Your task to perform on an android device: turn smart compose on in the gmail app Image 0: 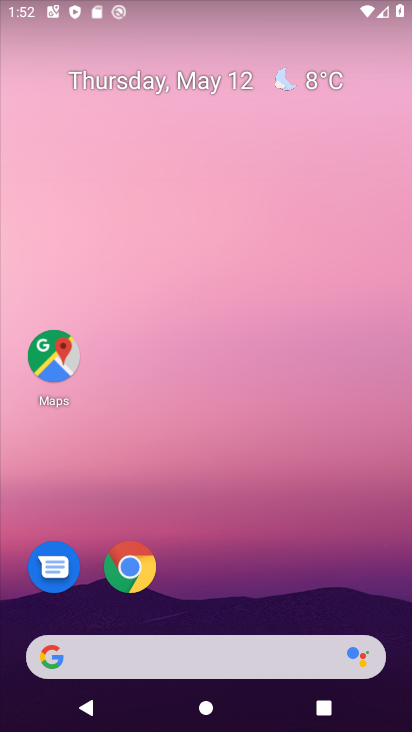
Step 0: drag from (219, 608) to (245, 33)
Your task to perform on an android device: turn smart compose on in the gmail app Image 1: 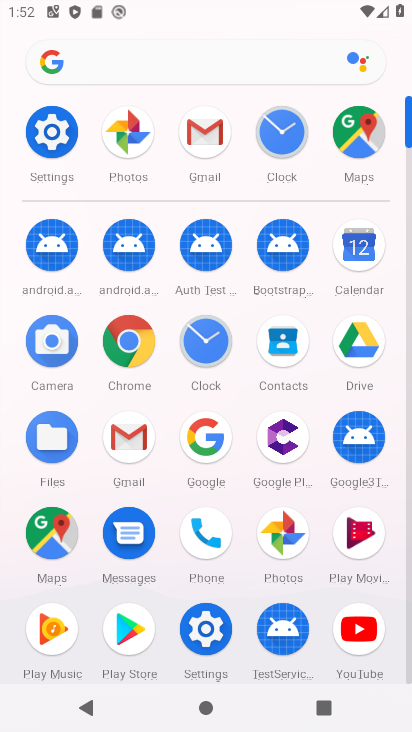
Step 1: click (128, 433)
Your task to perform on an android device: turn smart compose on in the gmail app Image 2: 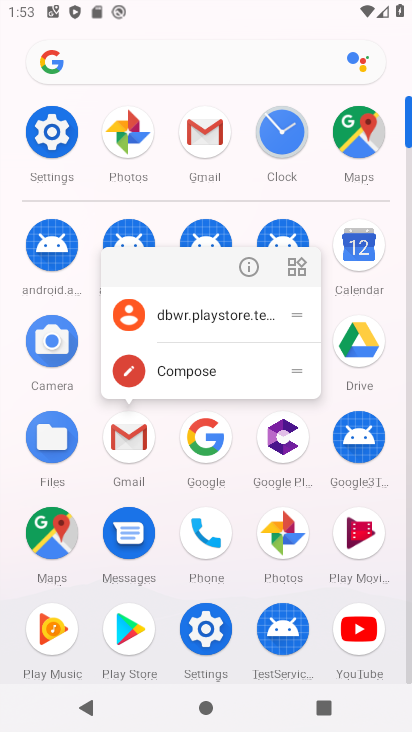
Step 2: click (124, 436)
Your task to perform on an android device: turn smart compose on in the gmail app Image 3: 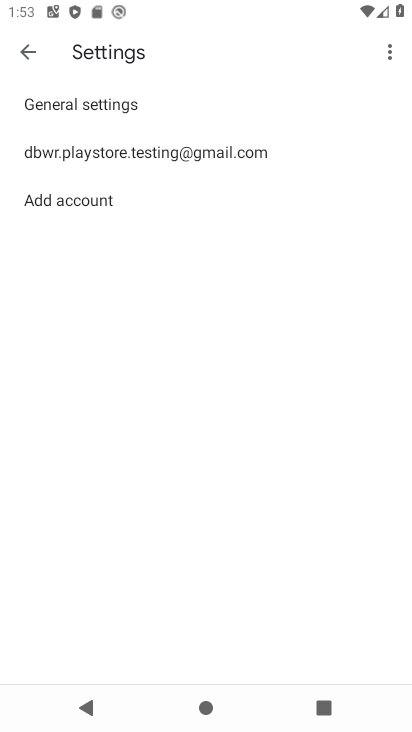
Step 3: click (153, 156)
Your task to perform on an android device: turn smart compose on in the gmail app Image 4: 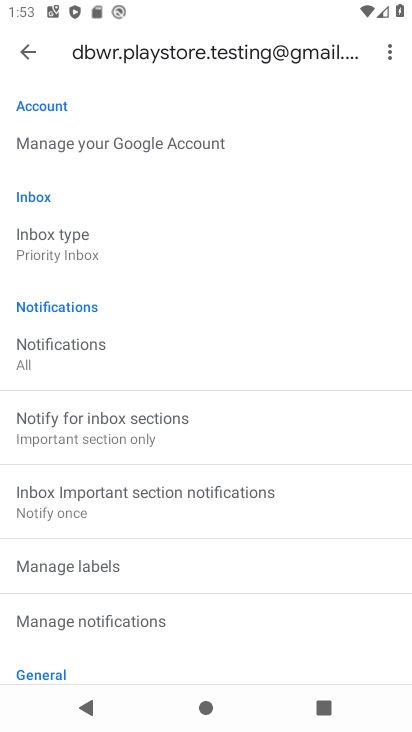
Step 4: drag from (192, 597) to (203, 192)
Your task to perform on an android device: turn smart compose on in the gmail app Image 5: 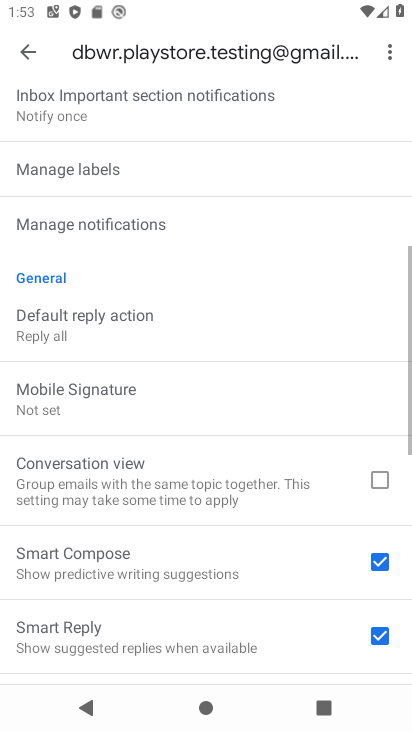
Step 5: click (203, 140)
Your task to perform on an android device: turn smart compose on in the gmail app Image 6: 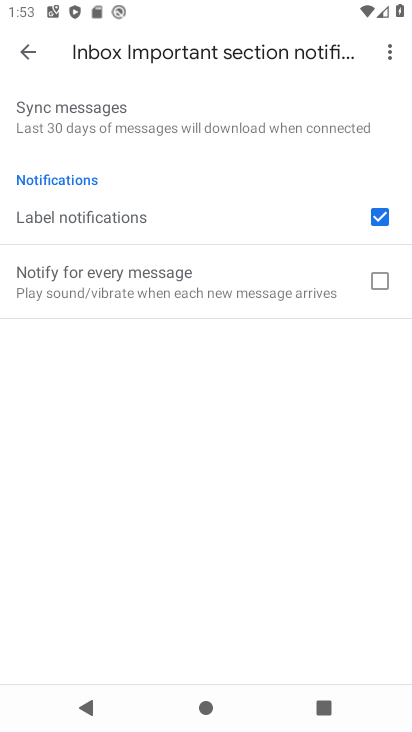
Step 6: click (31, 57)
Your task to perform on an android device: turn smart compose on in the gmail app Image 7: 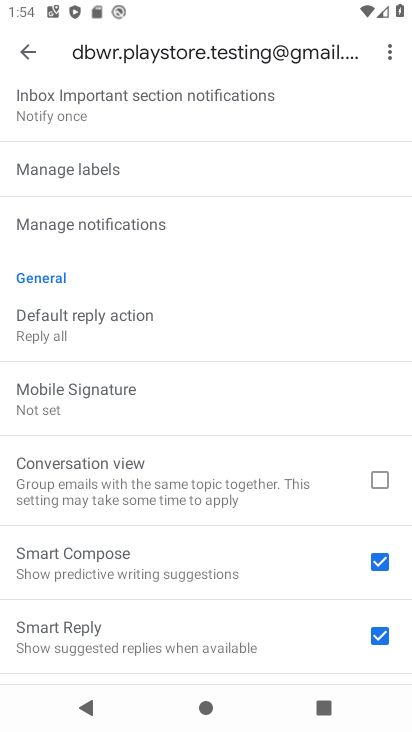
Step 7: task complete